Your task to perform on an android device: install app "Google News" Image 0: 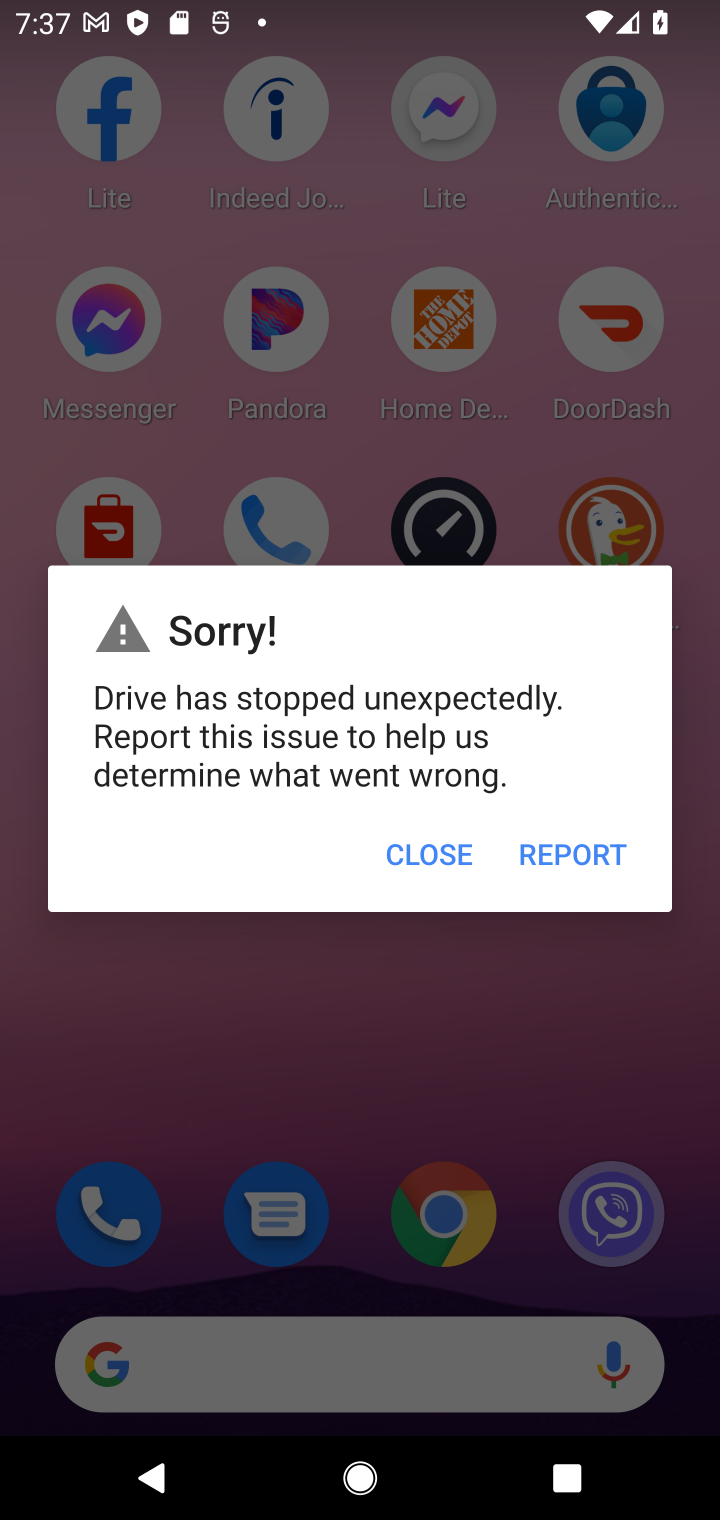
Step 0: click (407, 837)
Your task to perform on an android device: install app "Google News" Image 1: 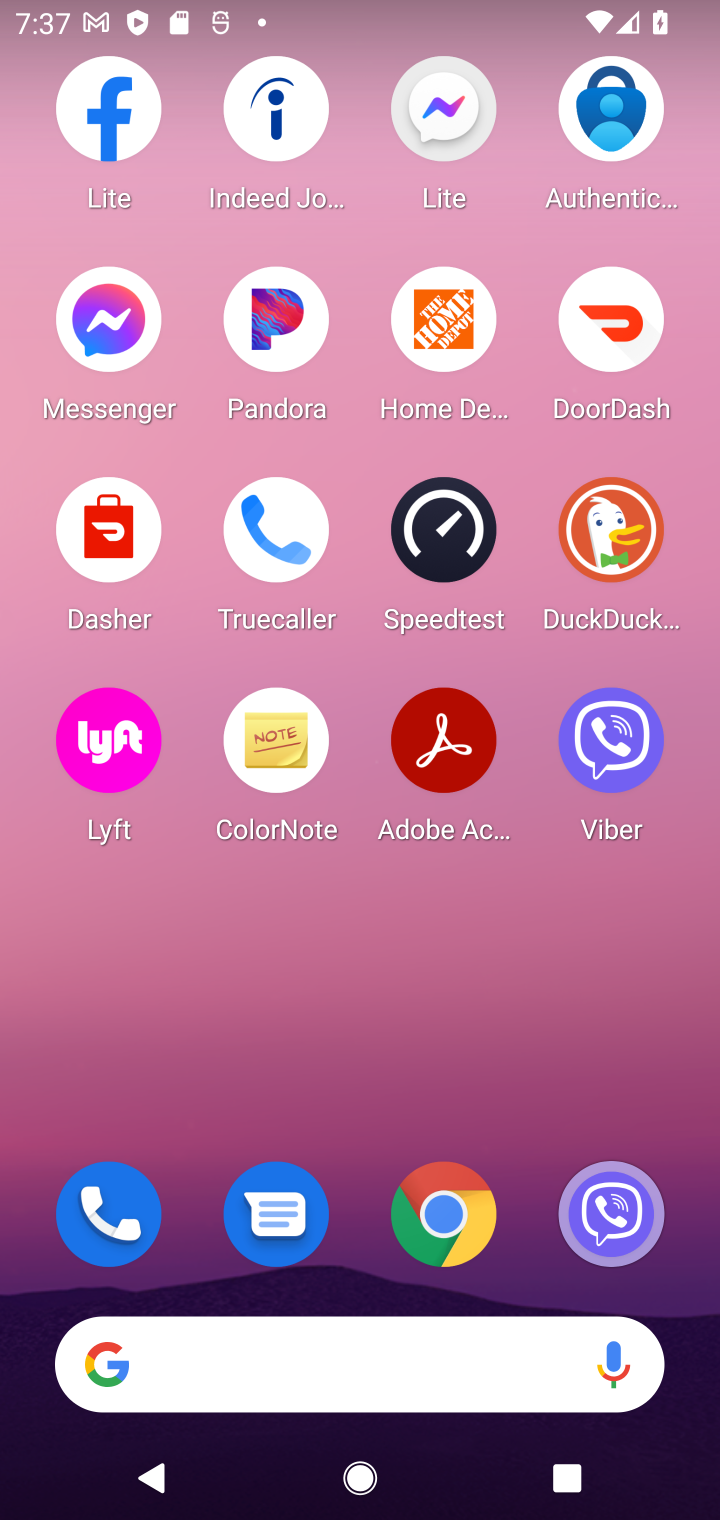
Step 1: drag from (304, 1079) to (442, 85)
Your task to perform on an android device: install app "Google News" Image 2: 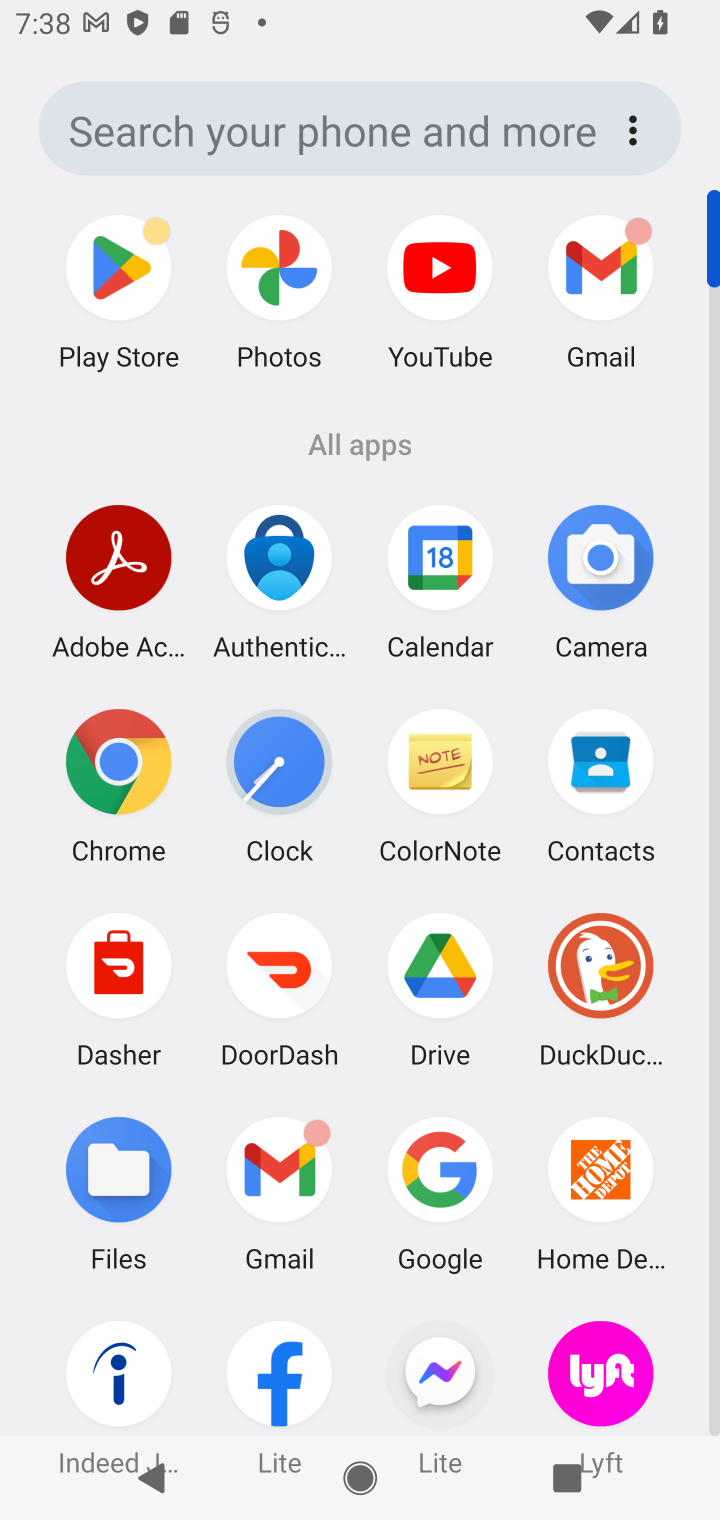
Step 2: click (70, 283)
Your task to perform on an android device: install app "Google News" Image 3: 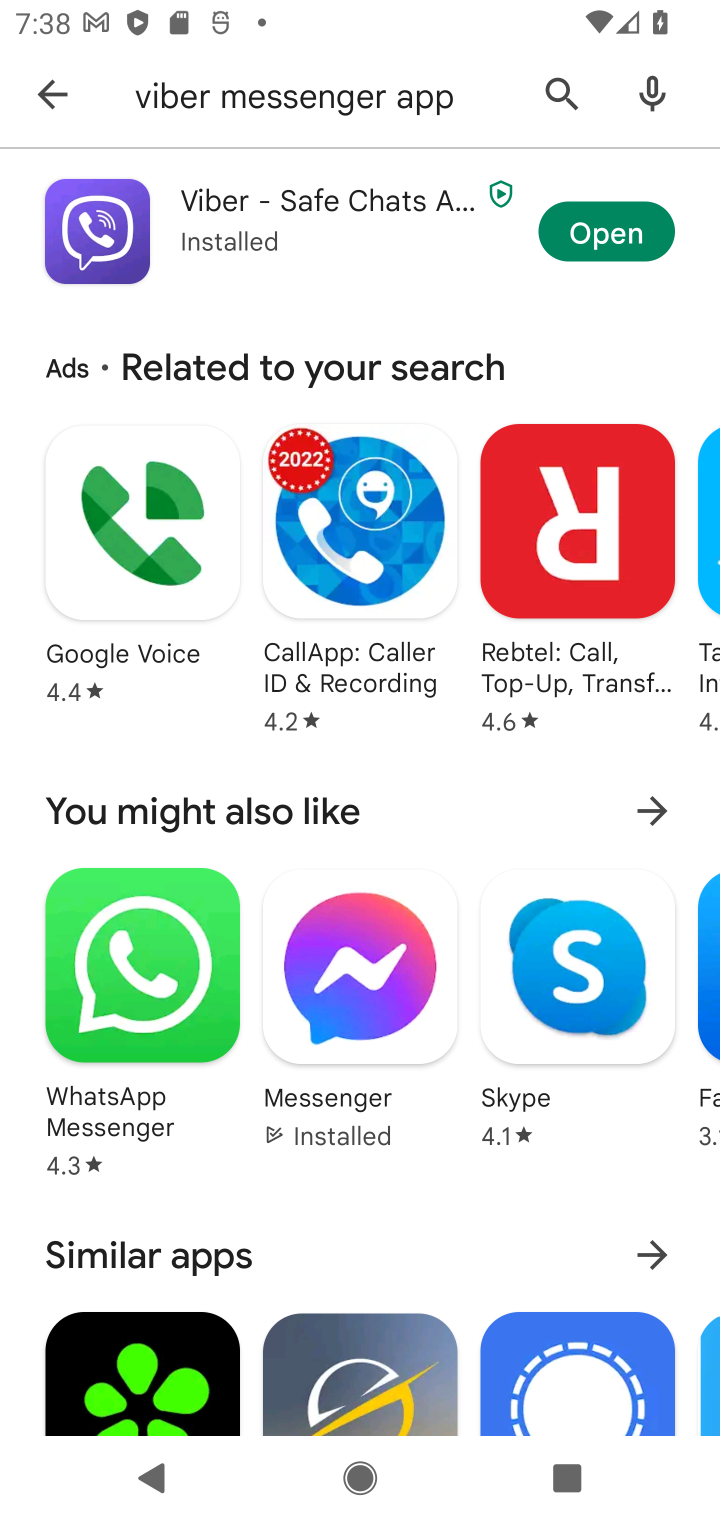
Step 3: click (565, 83)
Your task to perform on an android device: install app "Google News" Image 4: 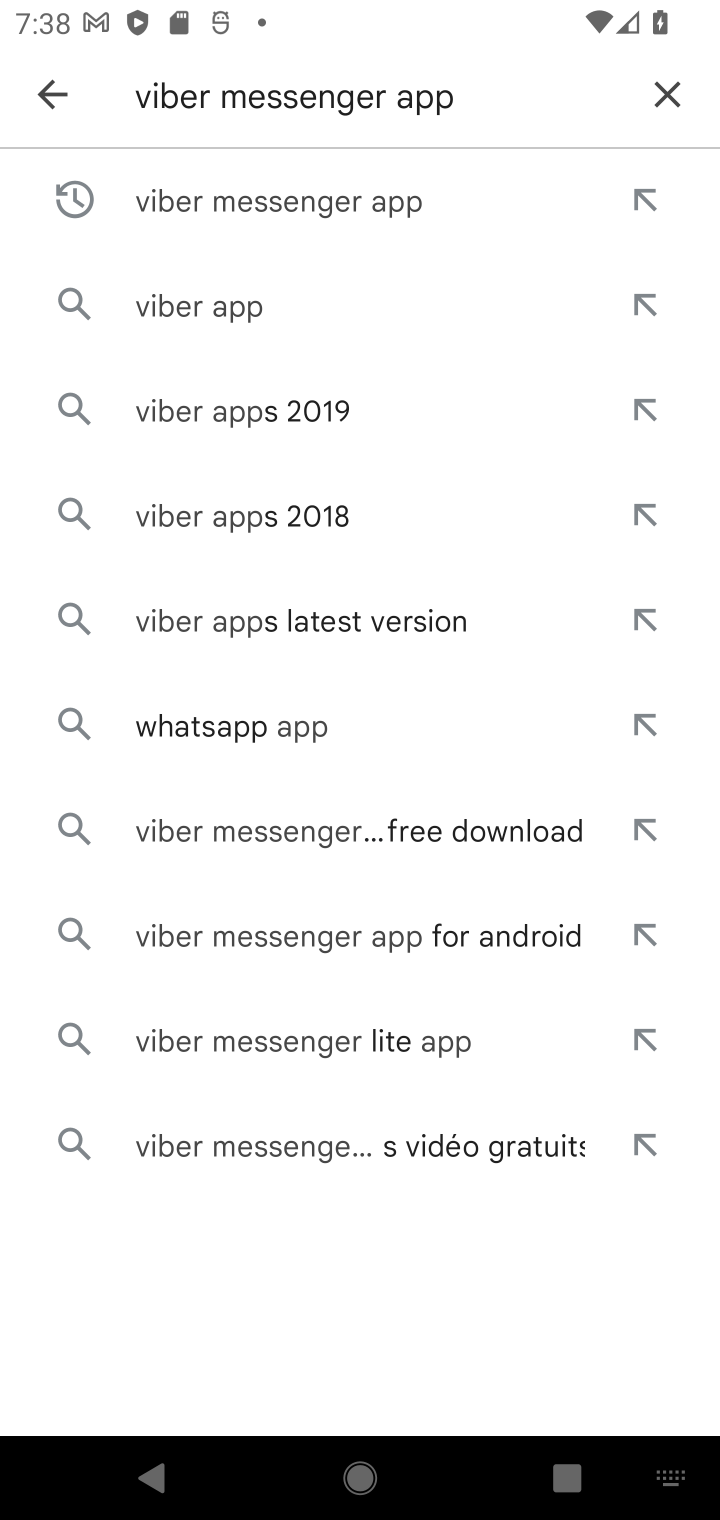
Step 4: click (658, 91)
Your task to perform on an android device: install app "Google News" Image 5: 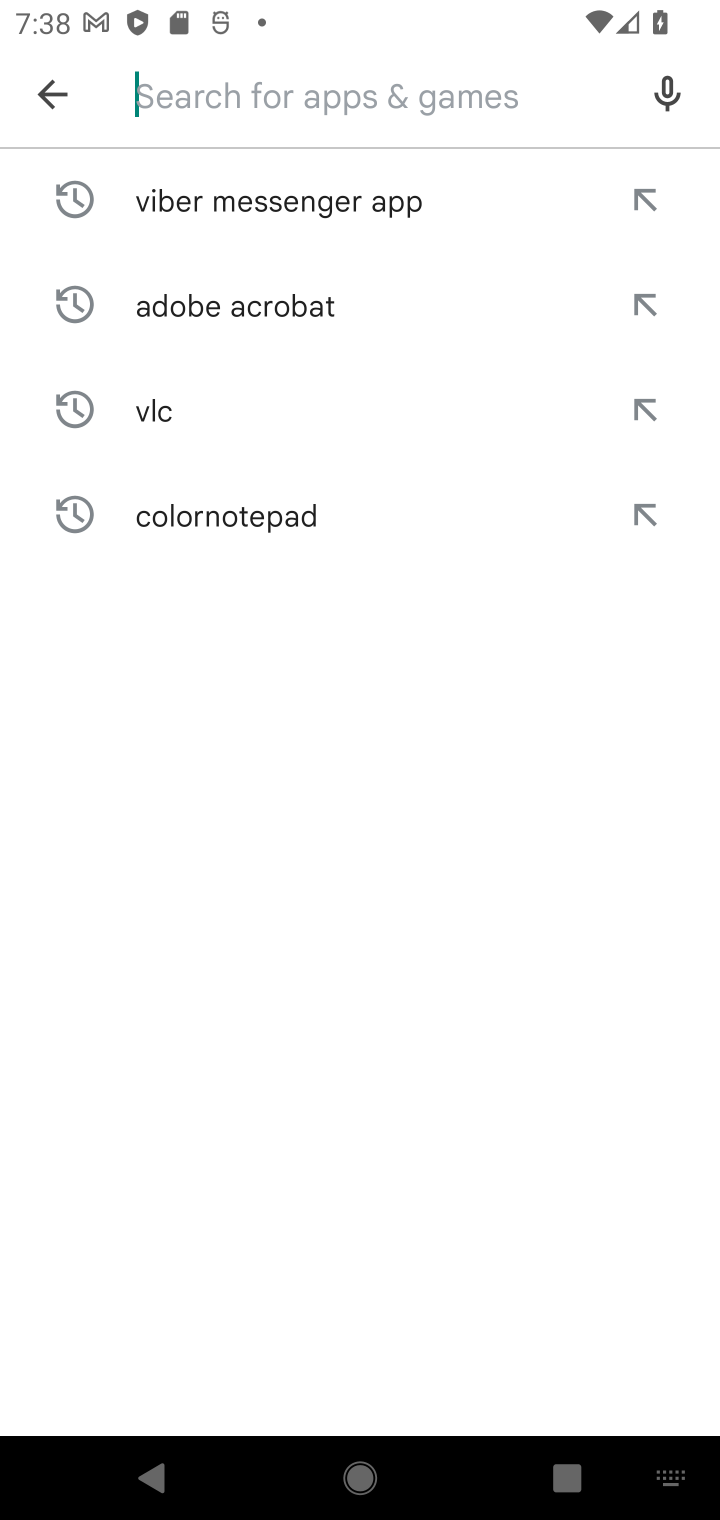
Step 5: click (247, 103)
Your task to perform on an android device: install app "Google News" Image 6: 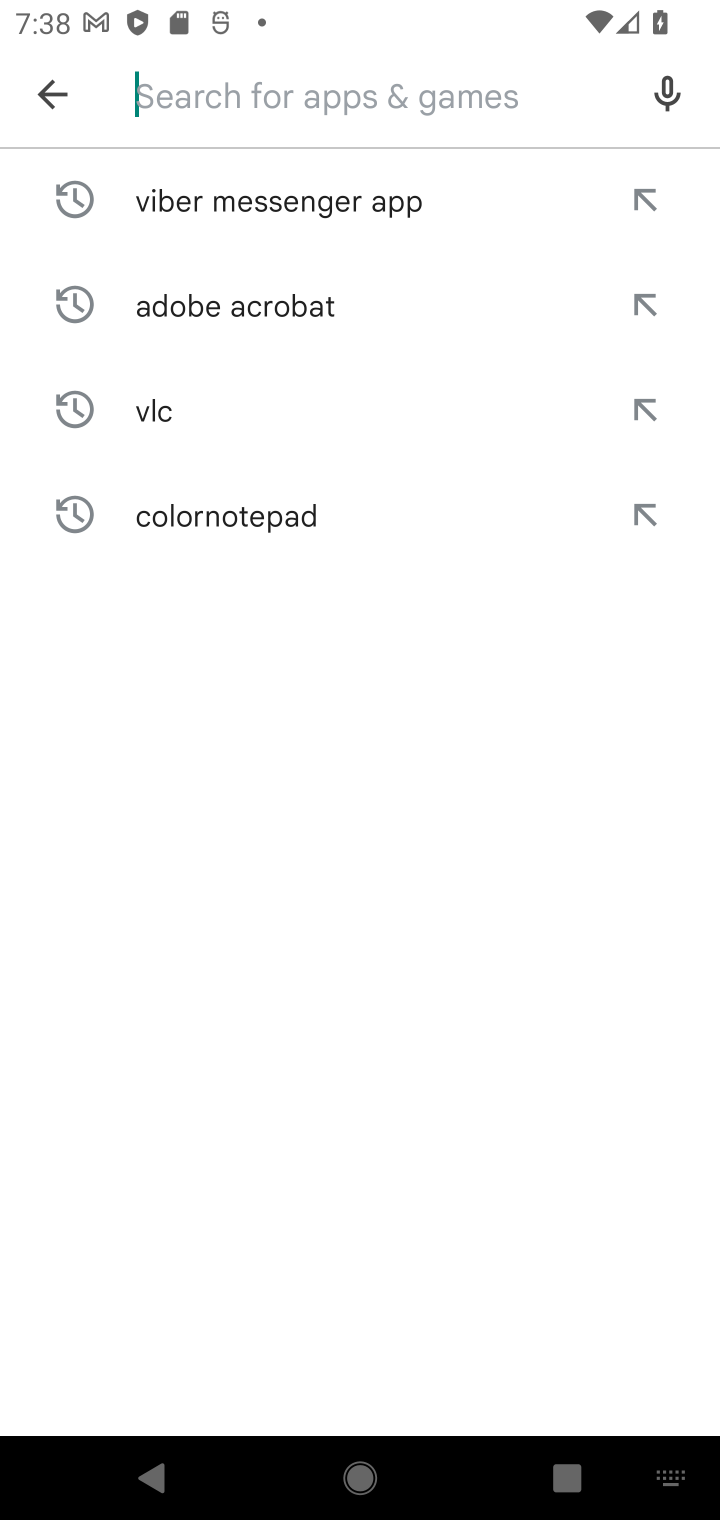
Step 6: type "google news"
Your task to perform on an android device: install app "Google News" Image 7: 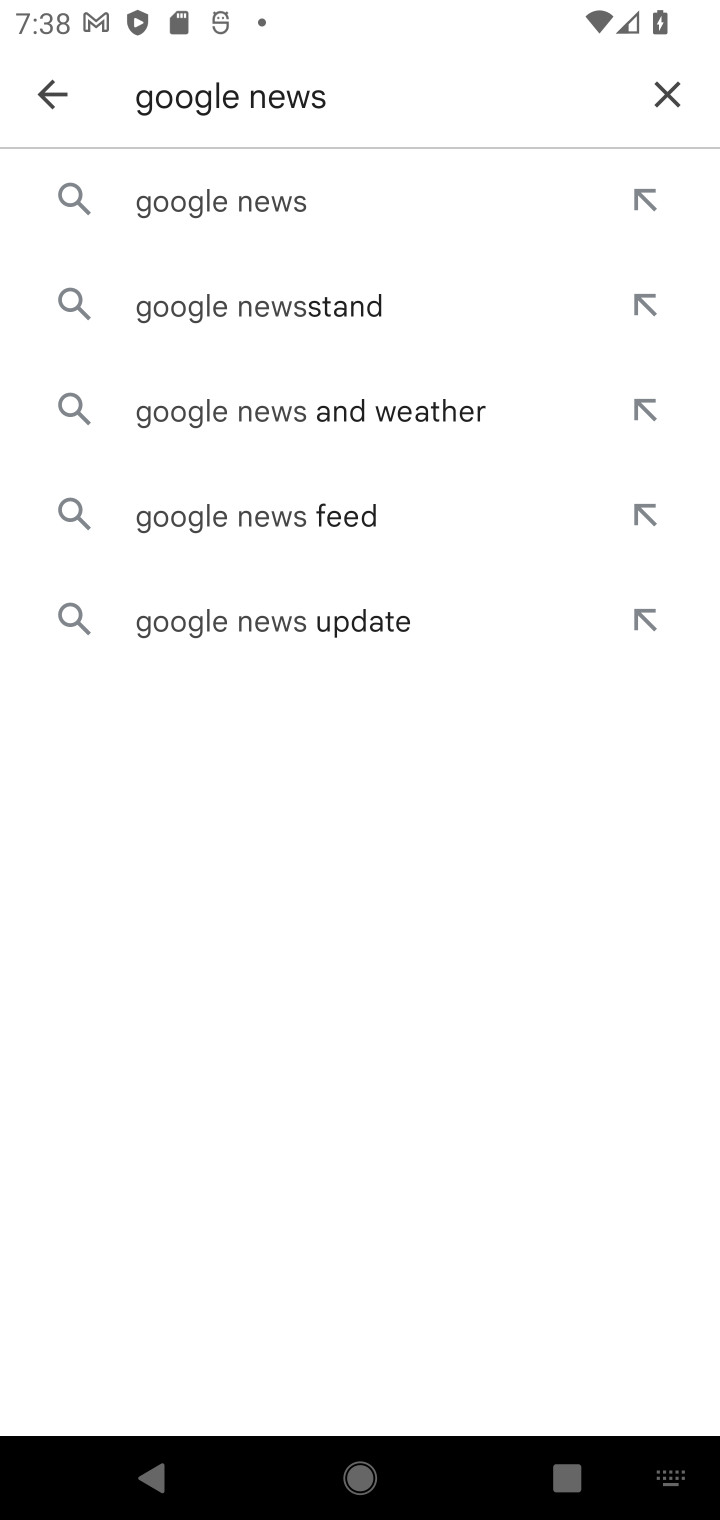
Step 7: click (317, 211)
Your task to perform on an android device: install app "Google News" Image 8: 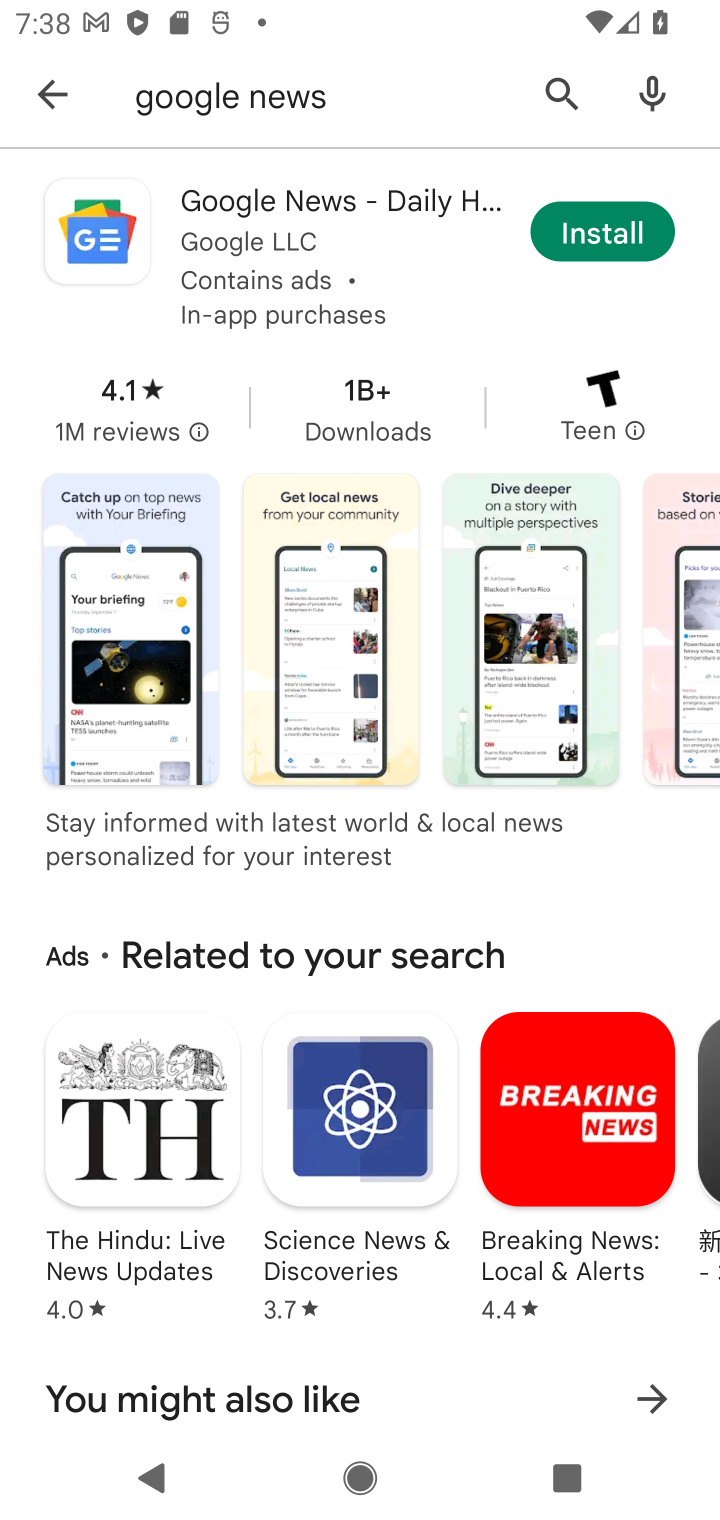
Step 8: click (578, 227)
Your task to perform on an android device: install app "Google News" Image 9: 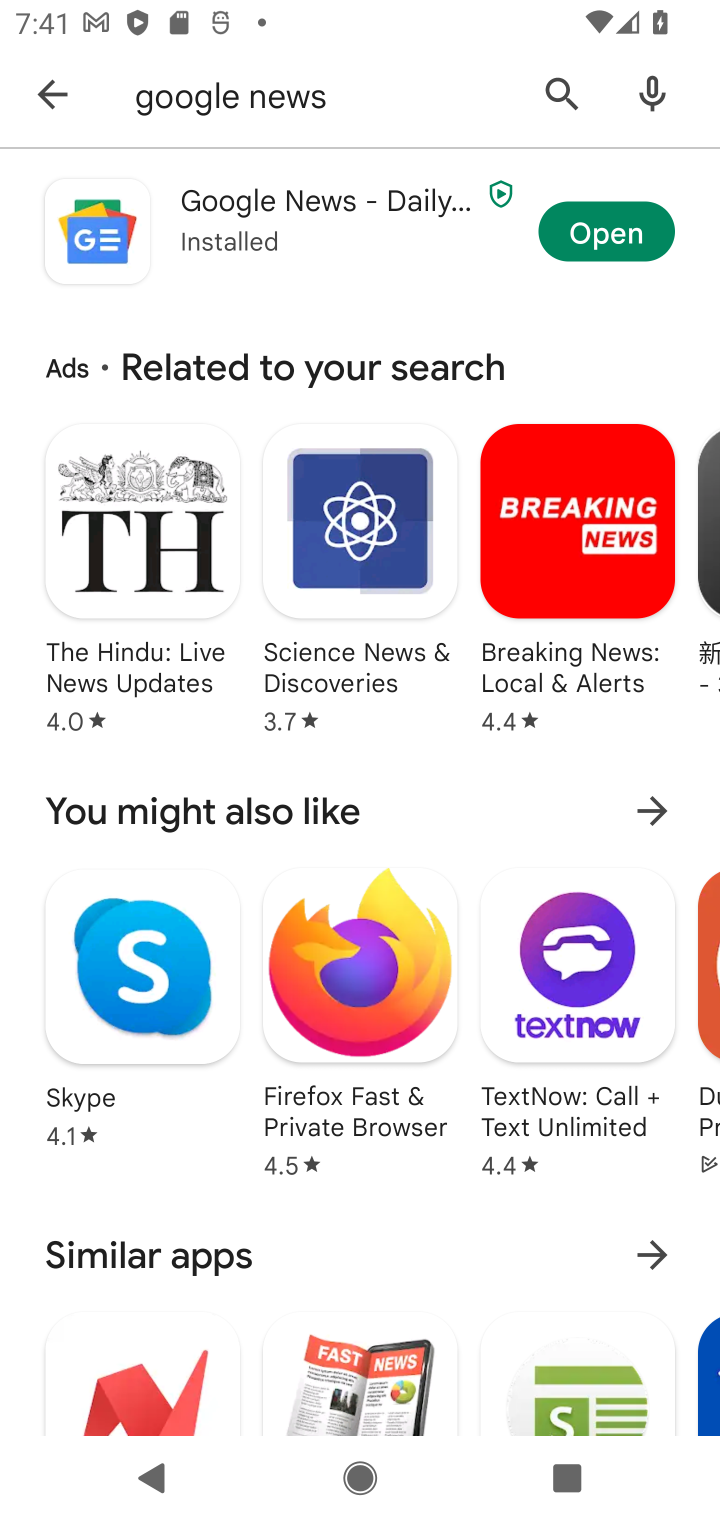
Step 9: task complete